Your task to perform on an android device: Open my contact list Image 0: 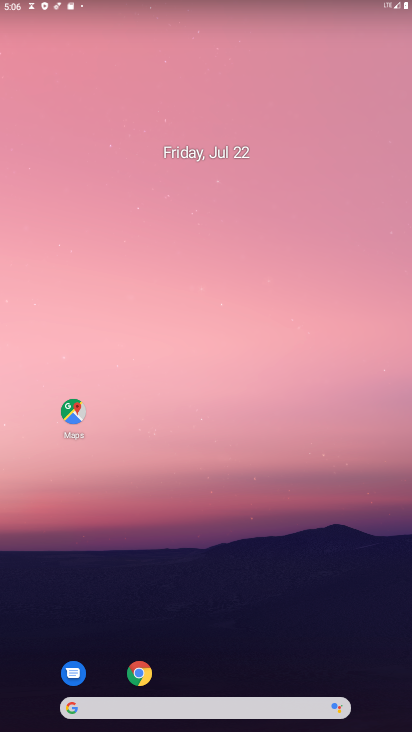
Step 0: drag from (203, 655) to (219, 90)
Your task to perform on an android device: Open my contact list Image 1: 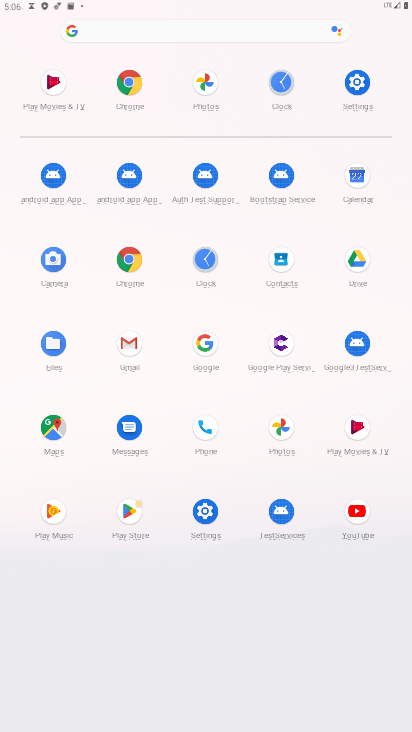
Step 1: click (280, 256)
Your task to perform on an android device: Open my contact list Image 2: 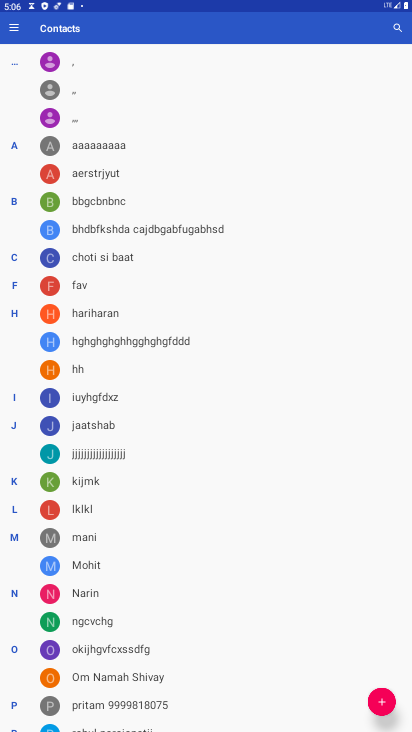
Step 2: task complete